Your task to perform on an android device: check out phone information Image 0: 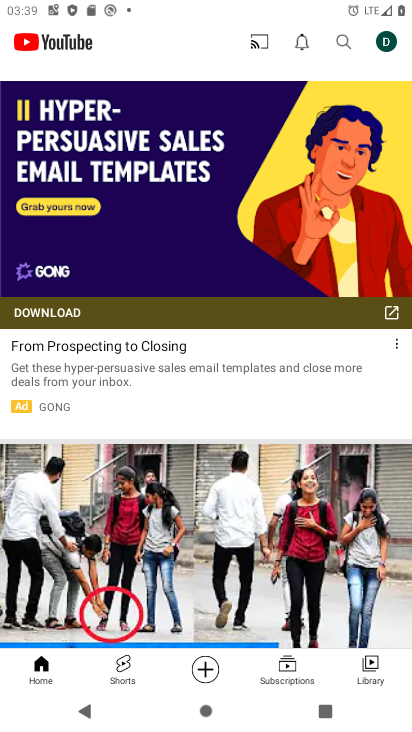
Step 0: press home button
Your task to perform on an android device: check out phone information Image 1: 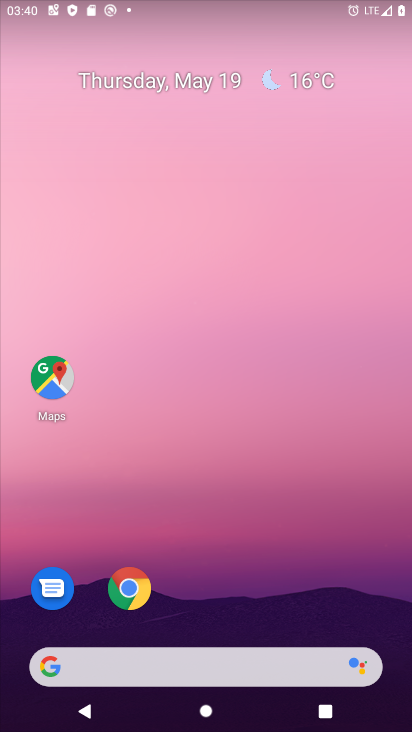
Step 1: drag from (268, 530) to (305, 76)
Your task to perform on an android device: check out phone information Image 2: 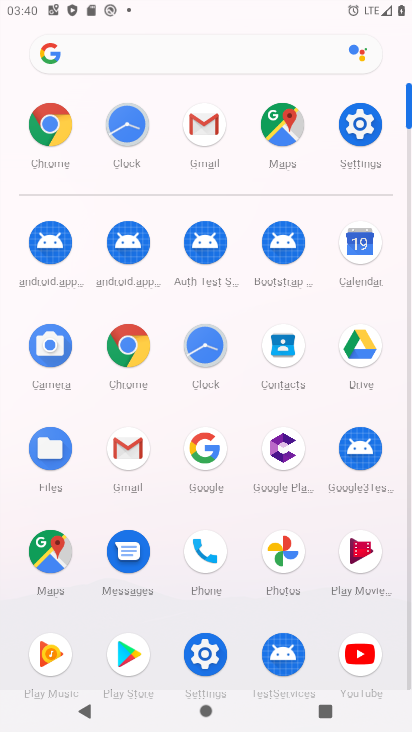
Step 2: click (214, 548)
Your task to perform on an android device: check out phone information Image 3: 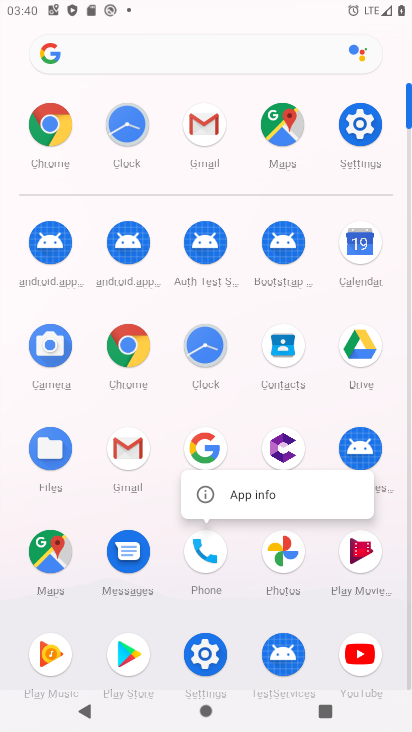
Step 3: click (249, 492)
Your task to perform on an android device: check out phone information Image 4: 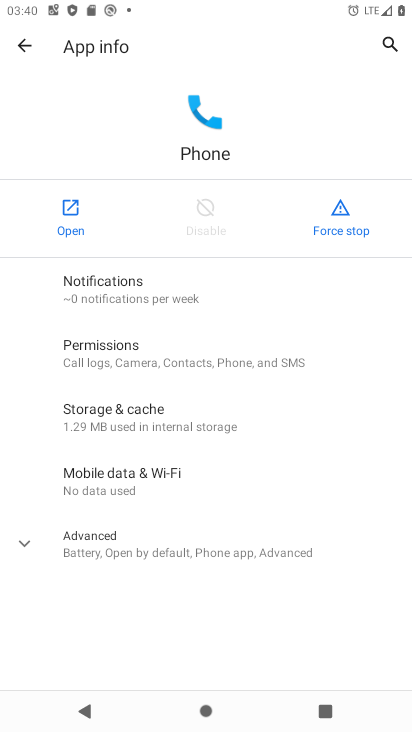
Step 4: task complete